Your task to perform on an android device: toggle javascript in the chrome app Image 0: 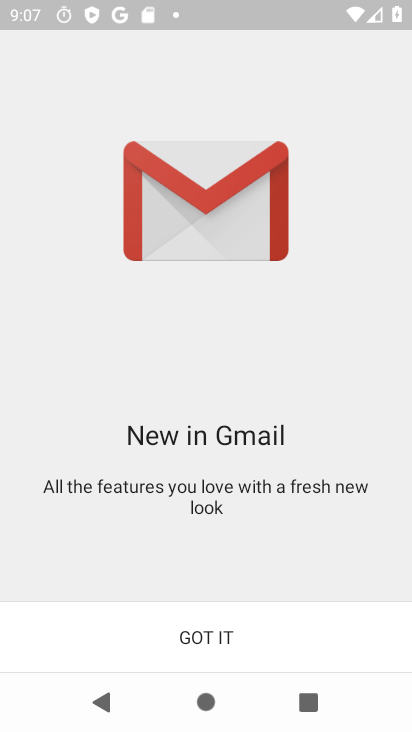
Step 0: press home button
Your task to perform on an android device: toggle javascript in the chrome app Image 1: 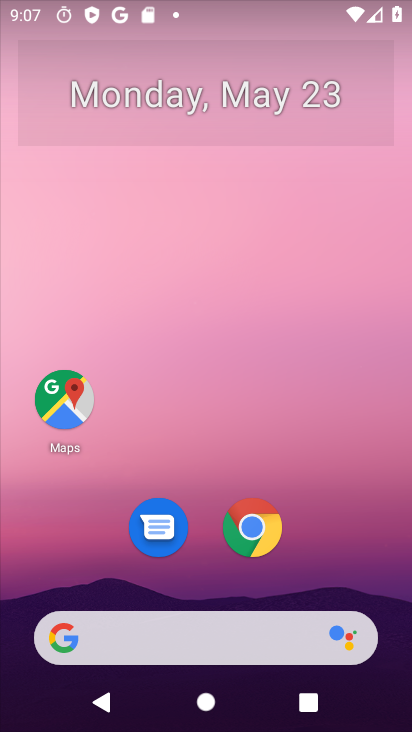
Step 1: drag from (369, 534) to (360, 98)
Your task to perform on an android device: toggle javascript in the chrome app Image 2: 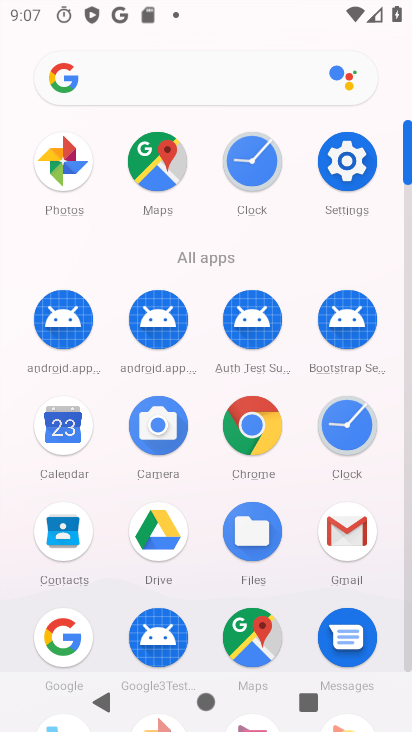
Step 2: click (246, 446)
Your task to perform on an android device: toggle javascript in the chrome app Image 3: 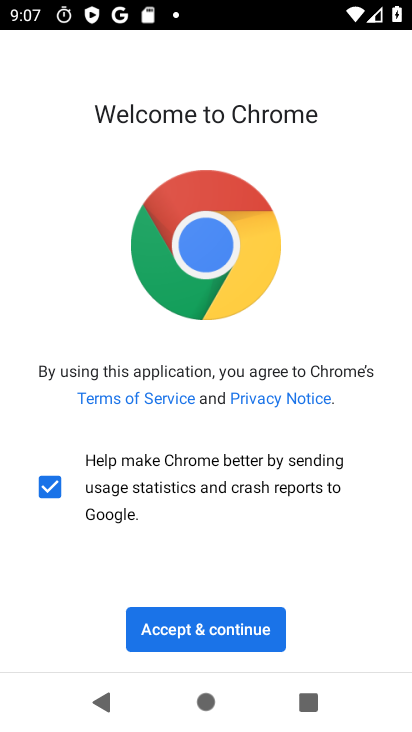
Step 3: click (250, 636)
Your task to perform on an android device: toggle javascript in the chrome app Image 4: 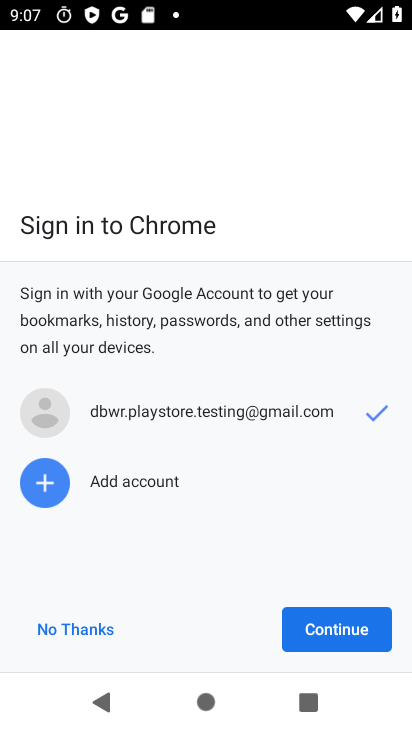
Step 4: click (375, 634)
Your task to perform on an android device: toggle javascript in the chrome app Image 5: 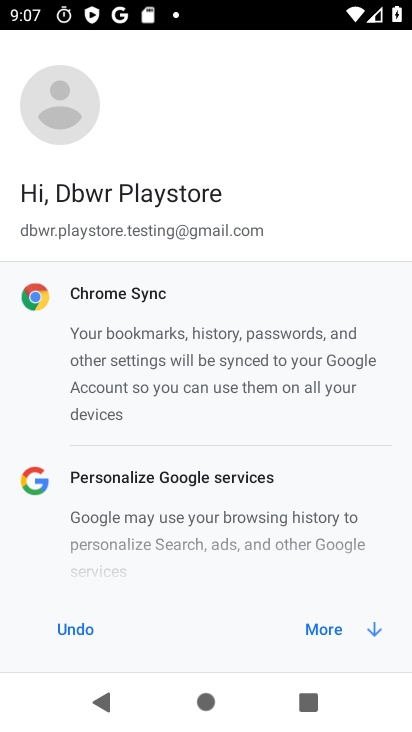
Step 5: click (329, 630)
Your task to perform on an android device: toggle javascript in the chrome app Image 6: 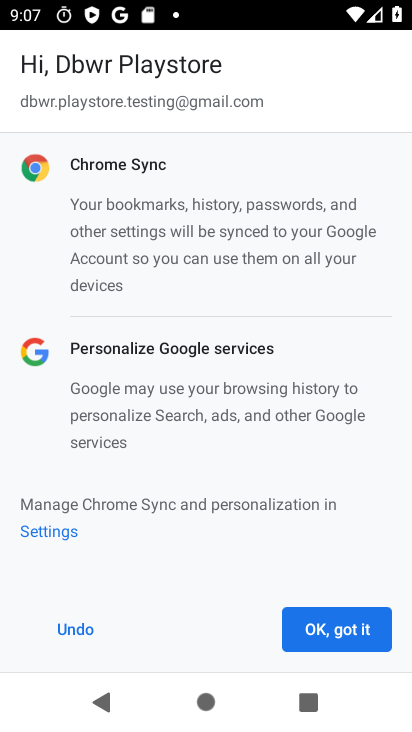
Step 6: click (330, 629)
Your task to perform on an android device: toggle javascript in the chrome app Image 7: 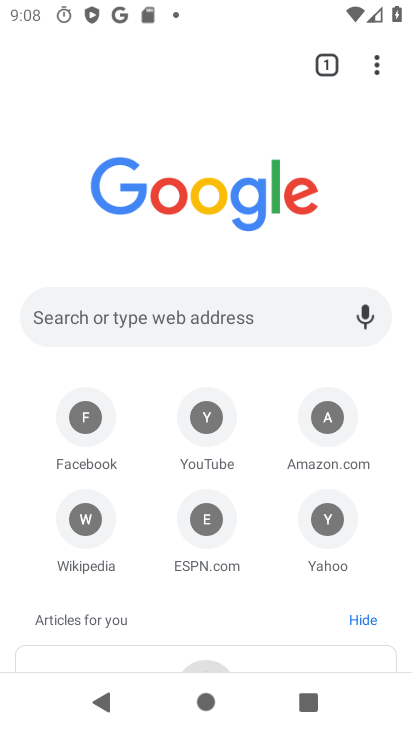
Step 7: drag from (369, 69) to (231, 560)
Your task to perform on an android device: toggle javascript in the chrome app Image 8: 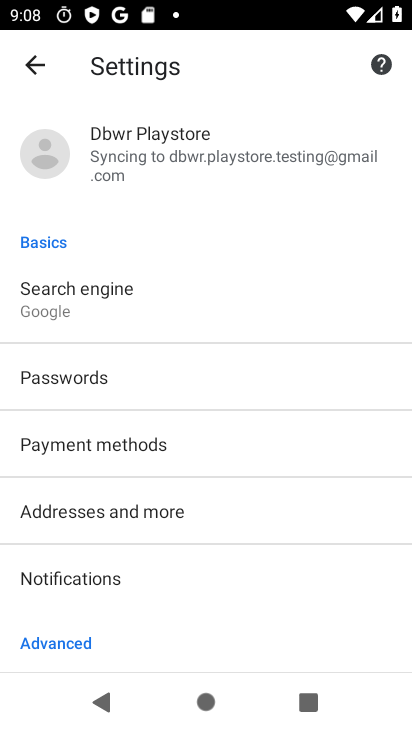
Step 8: drag from (183, 597) to (211, 291)
Your task to perform on an android device: toggle javascript in the chrome app Image 9: 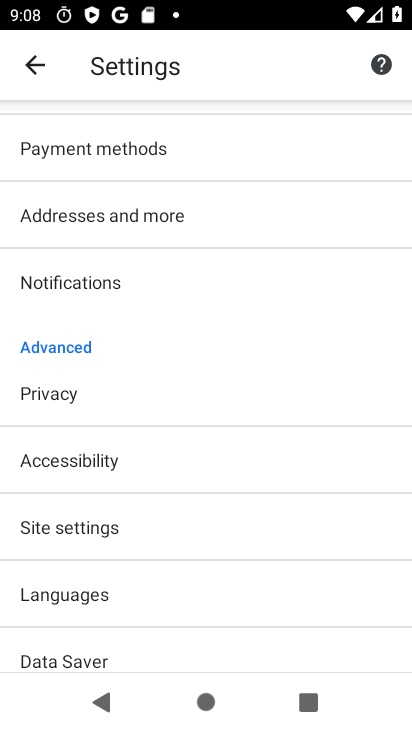
Step 9: drag from (161, 600) to (196, 305)
Your task to perform on an android device: toggle javascript in the chrome app Image 10: 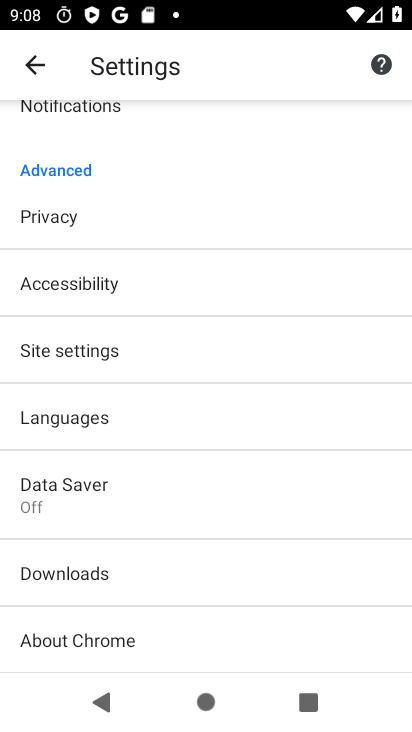
Step 10: click (115, 360)
Your task to perform on an android device: toggle javascript in the chrome app Image 11: 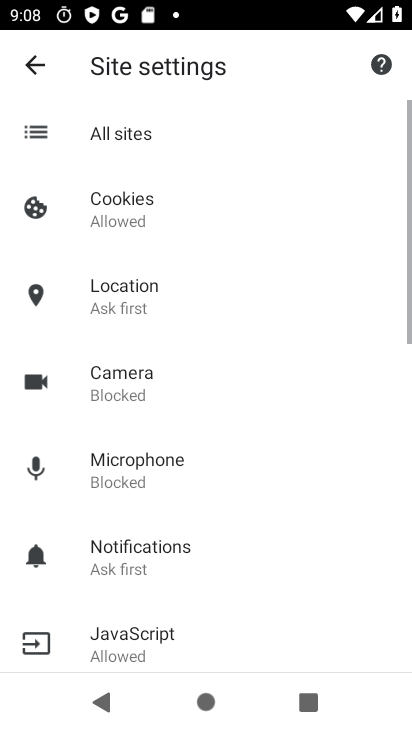
Step 11: drag from (209, 644) to (247, 335)
Your task to perform on an android device: toggle javascript in the chrome app Image 12: 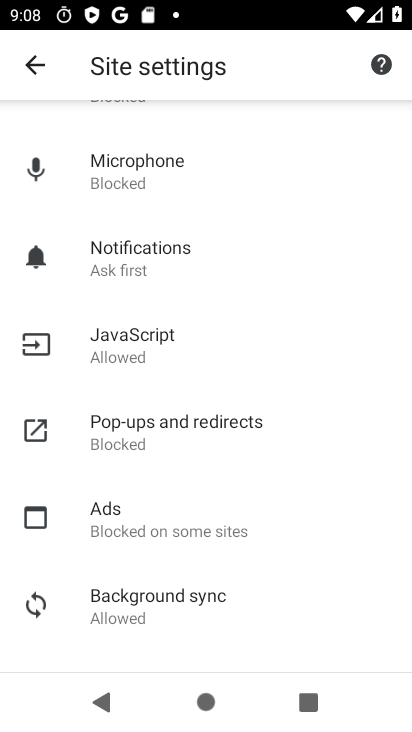
Step 12: click (164, 333)
Your task to perform on an android device: toggle javascript in the chrome app Image 13: 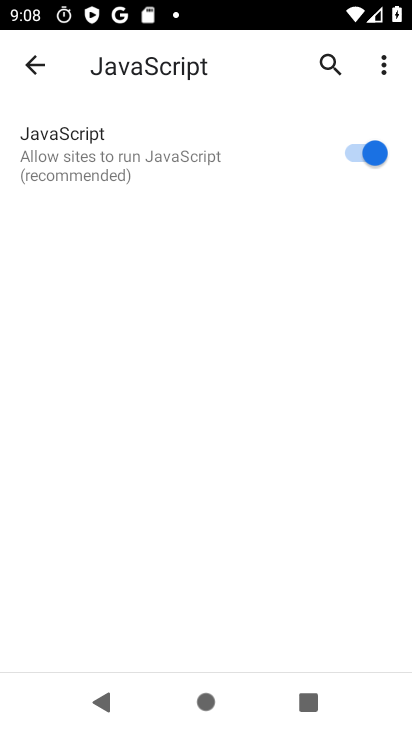
Step 13: click (355, 145)
Your task to perform on an android device: toggle javascript in the chrome app Image 14: 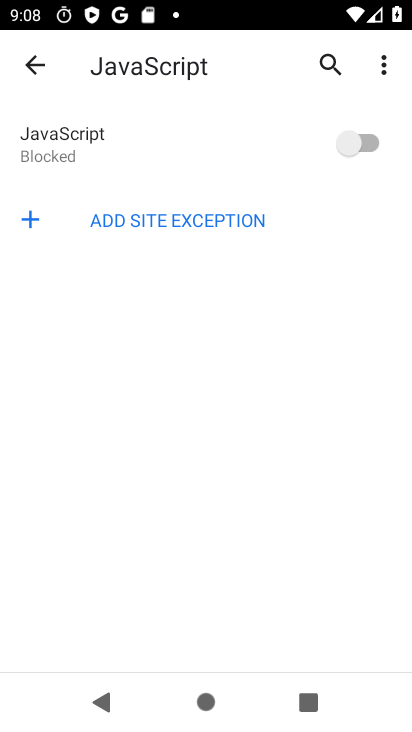
Step 14: task complete